Your task to perform on an android device: Open the calendar app, open the side menu, and click the "Day" option Image 0: 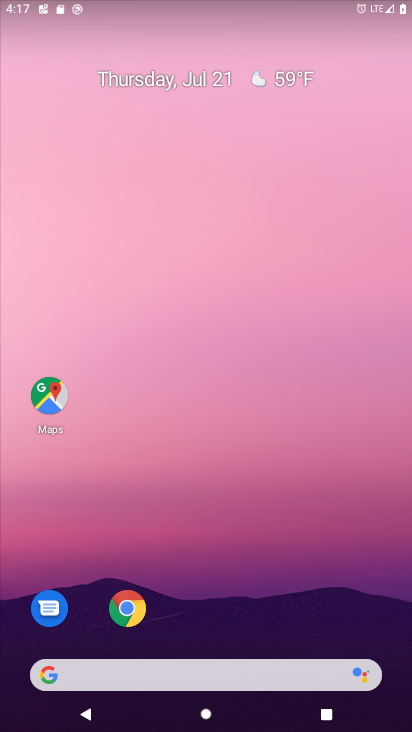
Step 0: drag from (290, 677) to (247, 88)
Your task to perform on an android device: Open the calendar app, open the side menu, and click the "Day" option Image 1: 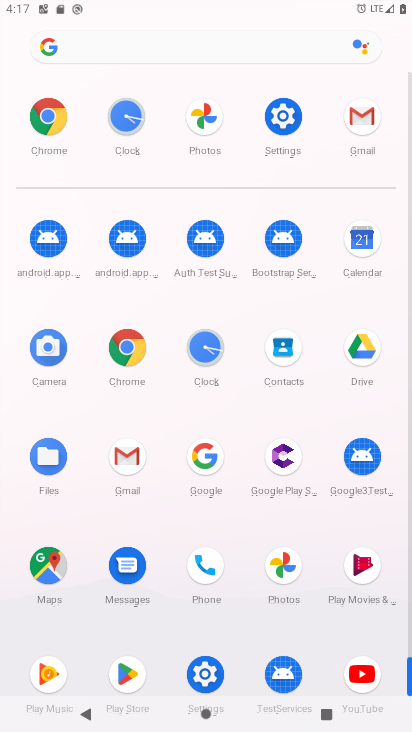
Step 1: click (362, 241)
Your task to perform on an android device: Open the calendar app, open the side menu, and click the "Day" option Image 2: 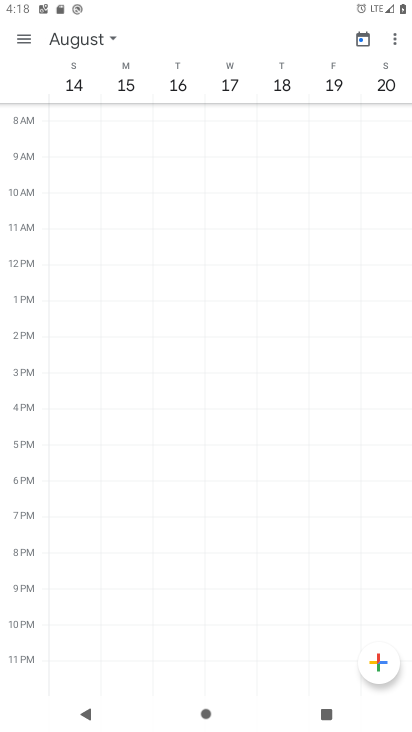
Step 2: click (23, 38)
Your task to perform on an android device: Open the calendar app, open the side menu, and click the "Day" option Image 3: 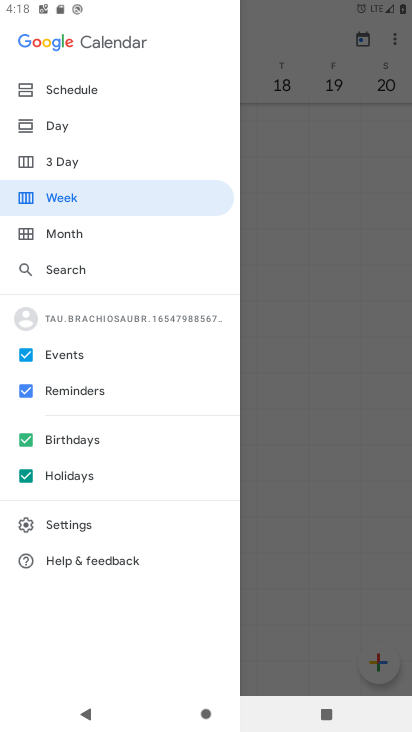
Step 3: click (63, 123)
Your task to perform on an android device: Open the calendar app, open the side menu, and click the "Day" option Image 4: 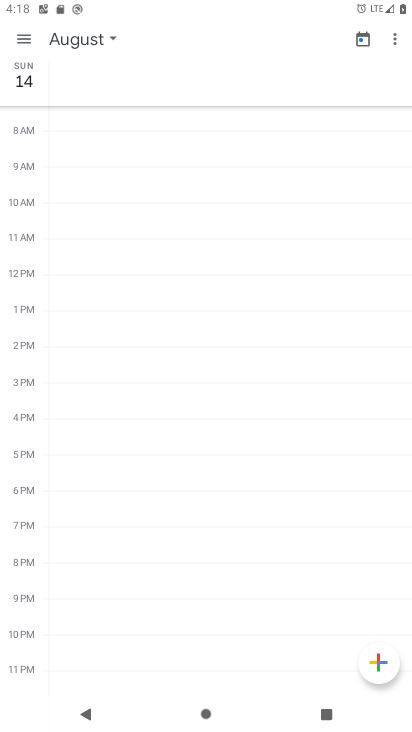
Step 4: task complete